Your task to perform on an android device: Go to accessibility settings Image 0: 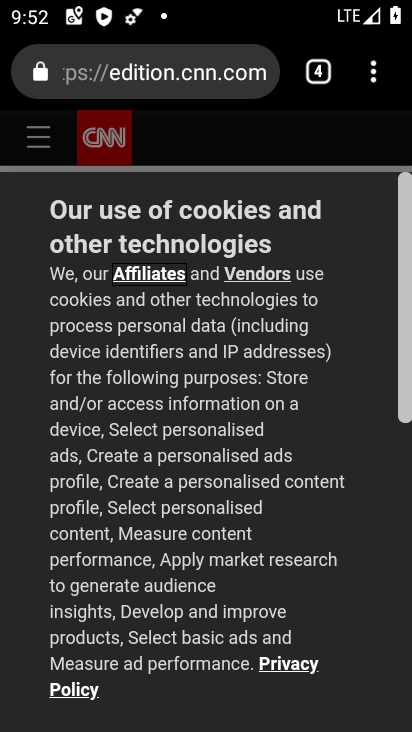
Step 0: press home button
Your task to perform on an android device: Go to accessibility settings Image 1: 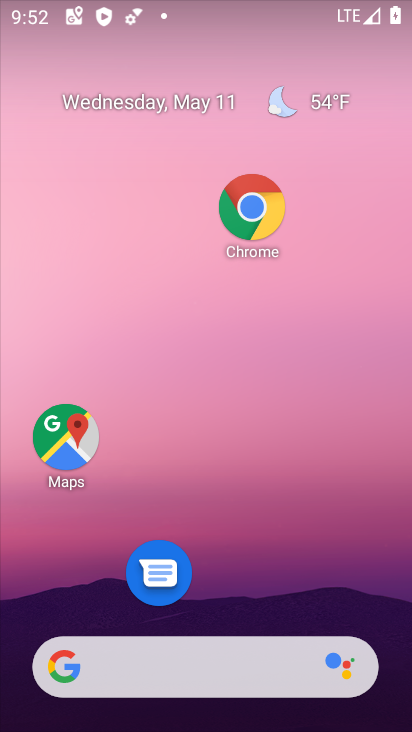
Step 1: drag from (218, 633) to (179, 8)
Your task to perform on an android device: Go to accessibility settings Image 2: 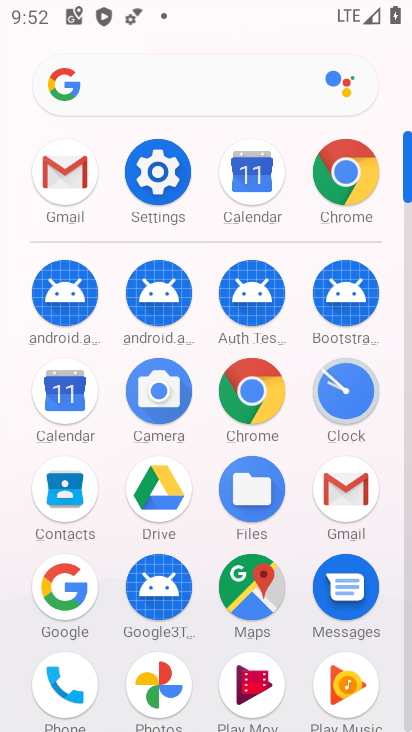
Step 2: click (143, 184)
Your task to perform on an android device: Go to accessibility settings Image 3: 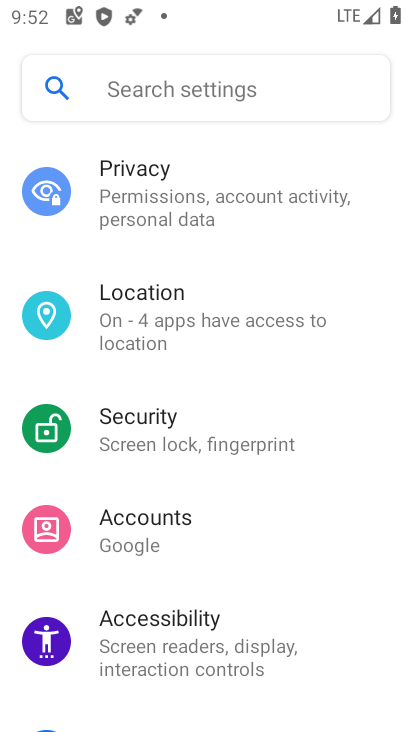
Step 3: click (220, 633)
Your task to perform on an android device: Go to accessibility settings Image 4: 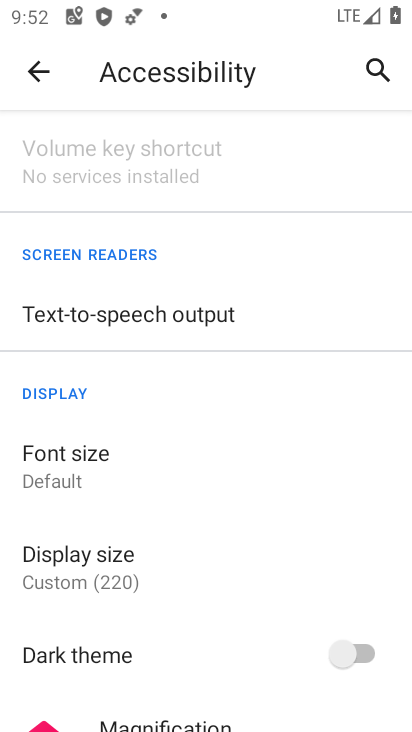
Step 4: task complete